Your task to perform on an android device: empty trash in the gmail app Image 0: 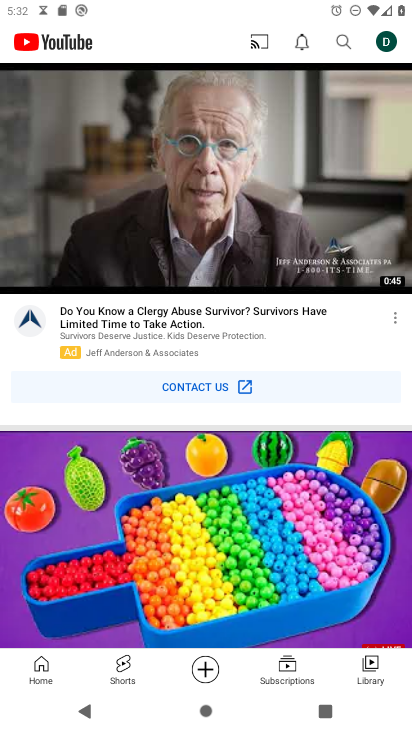
Step 0: press back button
Your task to perform on an android device: empty trash in the gmail app Image 1: 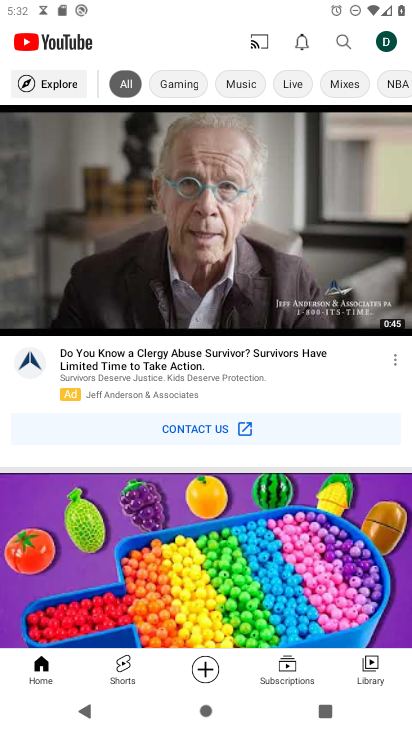
Step 1: press home button
Your task to perform on an android device: empty trash in the gmail app Image 2: 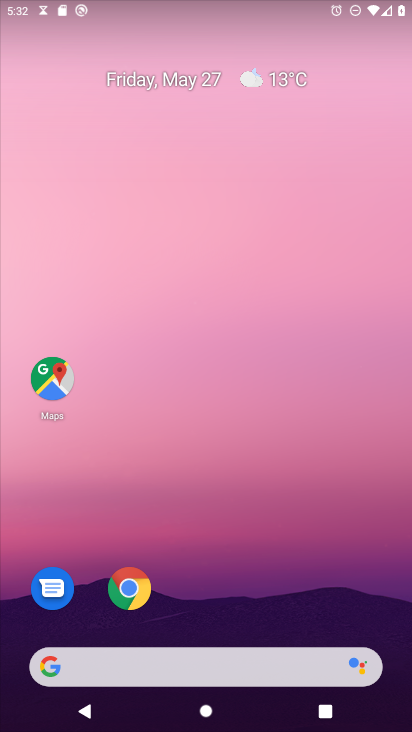
Step 2: drag from (284, 572) to (329, 25)
Your task to perform on an android device: empty trash in the gmail app Image 3: 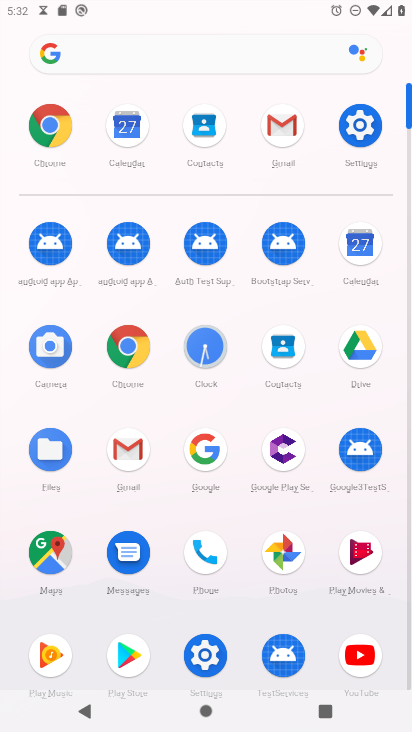
Step 3: click (278, 93)
Your task to perform on an android device: empty trash in the gmail app Image 4: 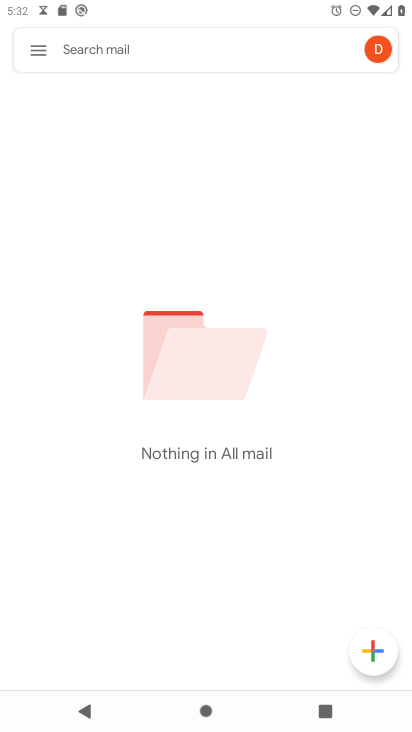
Step 4: click (26, 41)
Your task to perform on an android device: empty trash in the gmail app Image 5: 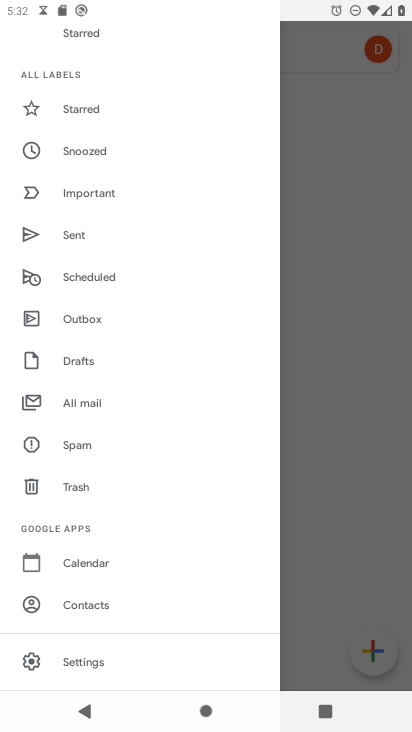
Step 5: click (63, 476)
Your task to perform on an android device: empty trash in the gmail app Image 6: 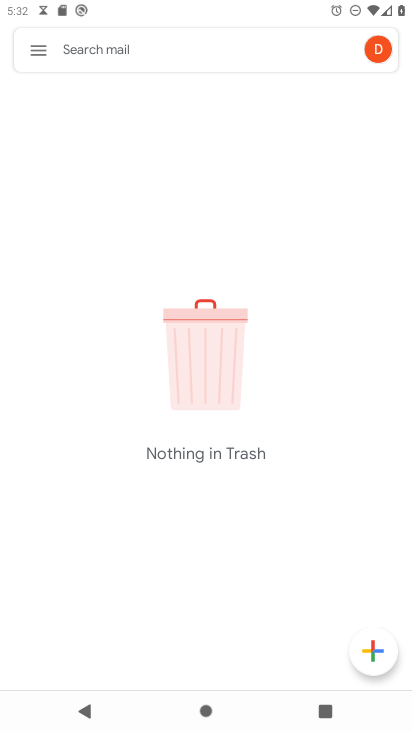
Step 6: task complete